Your task to perform on an android device: check google app version Image 0: 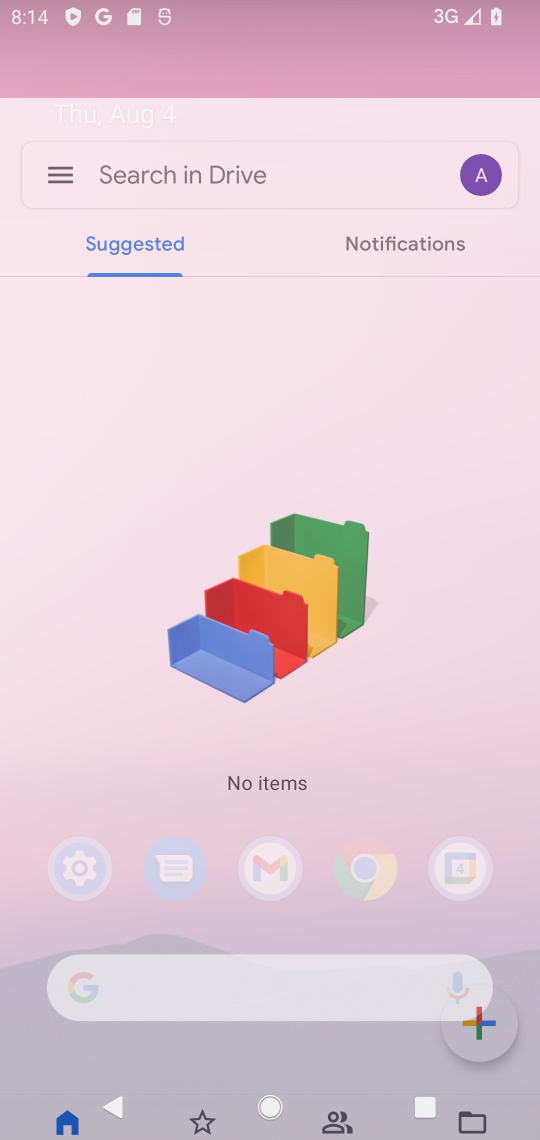
Step 0: press home button
Your task to perform on an android device: check google app version Image 1: 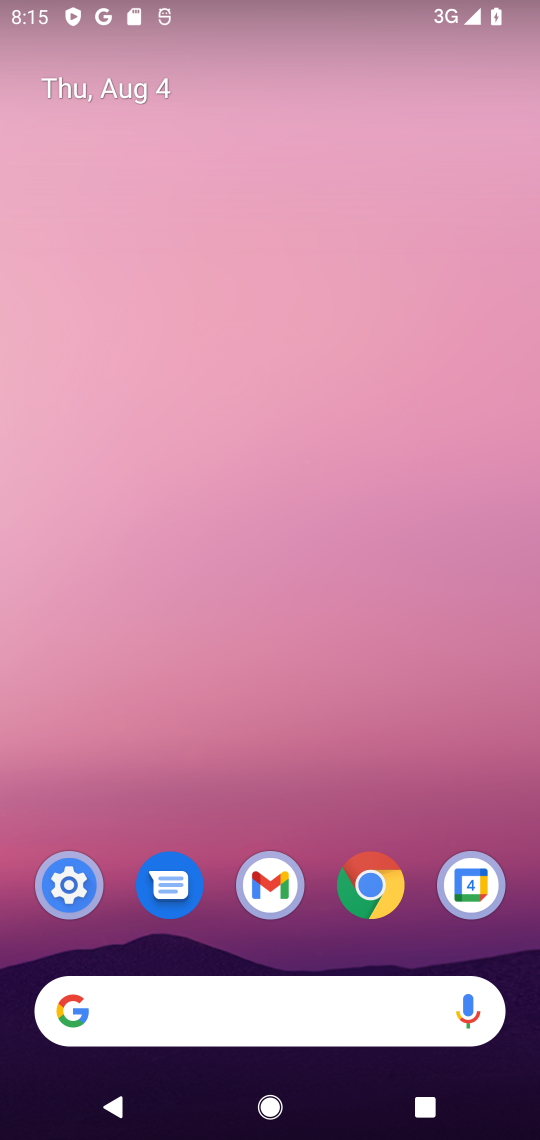
Step 1: drag from (313, 824) to (293, 68)
Your task to perform on an android device: check google app version Image 2: 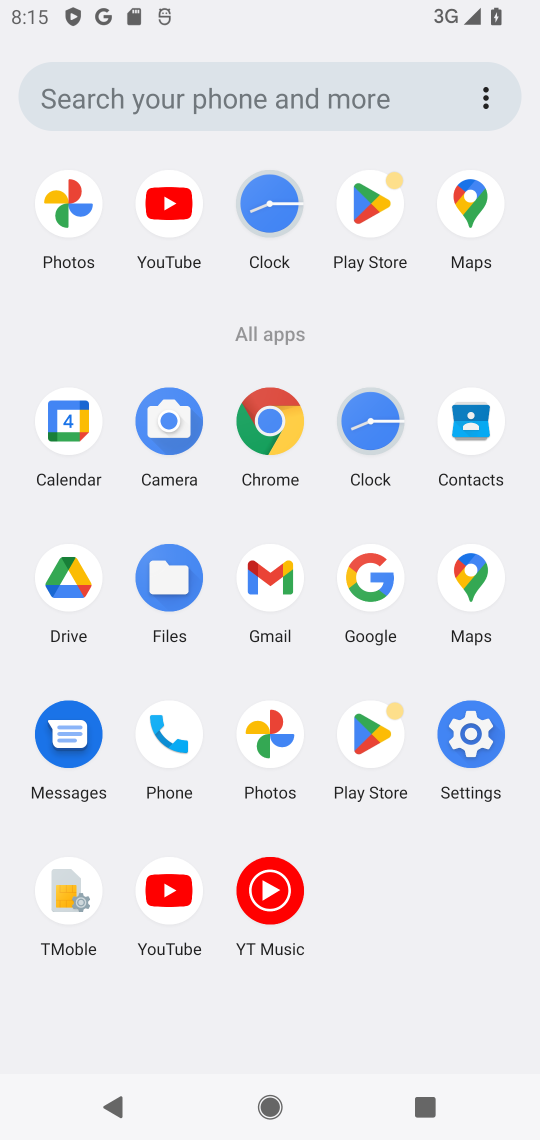
Step 2: click (371, 568)
Your task to perform on an android device: check google app version Image 3: 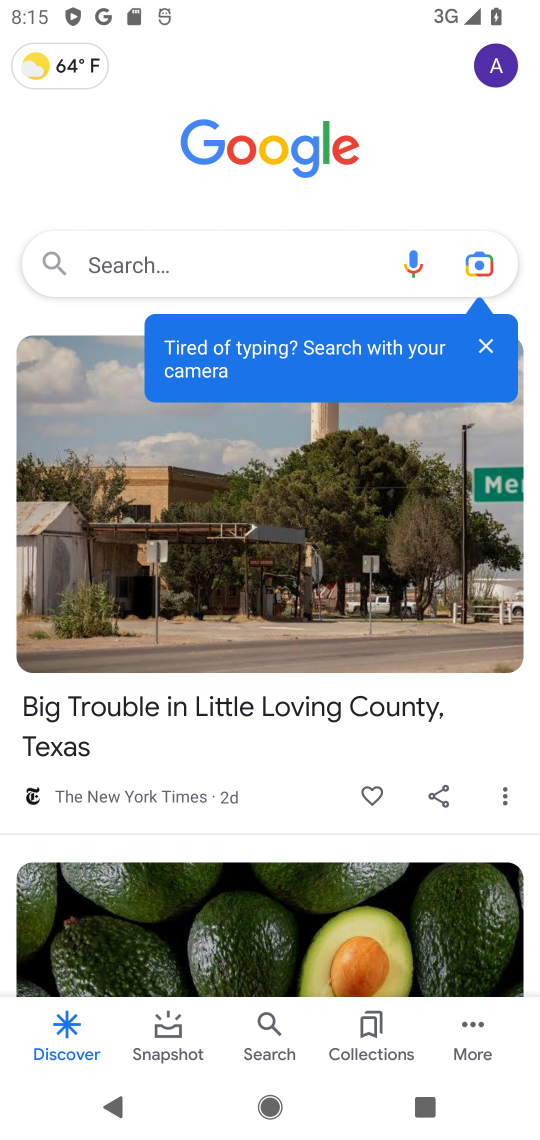
Step 3: click (497, 66)
Your task to perform on an android device: check google app version Image 4: 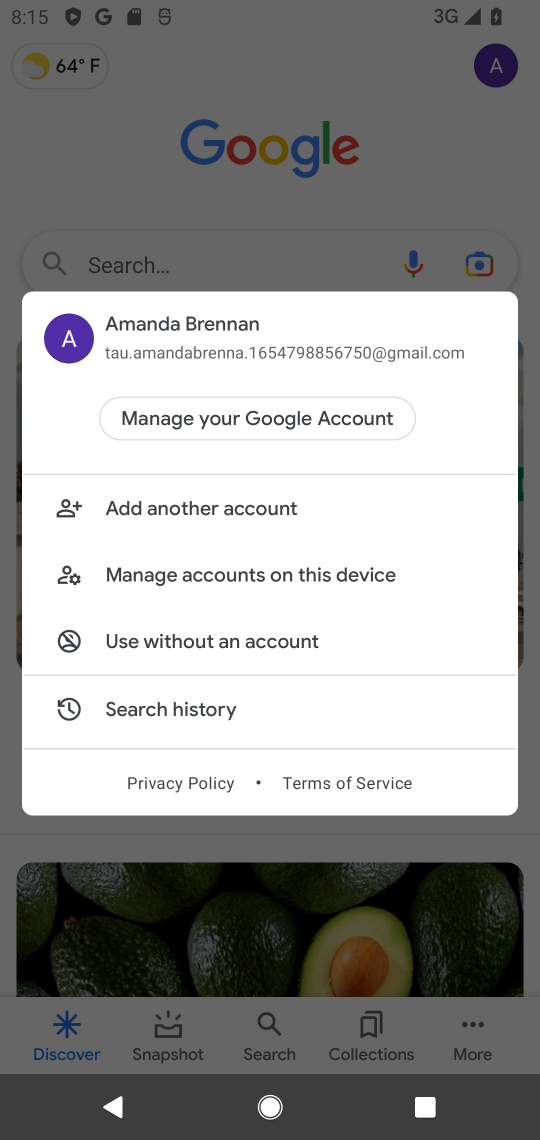
Step 4: click (300, 945)
Your task to perform on an android device: check google app version Image 5: 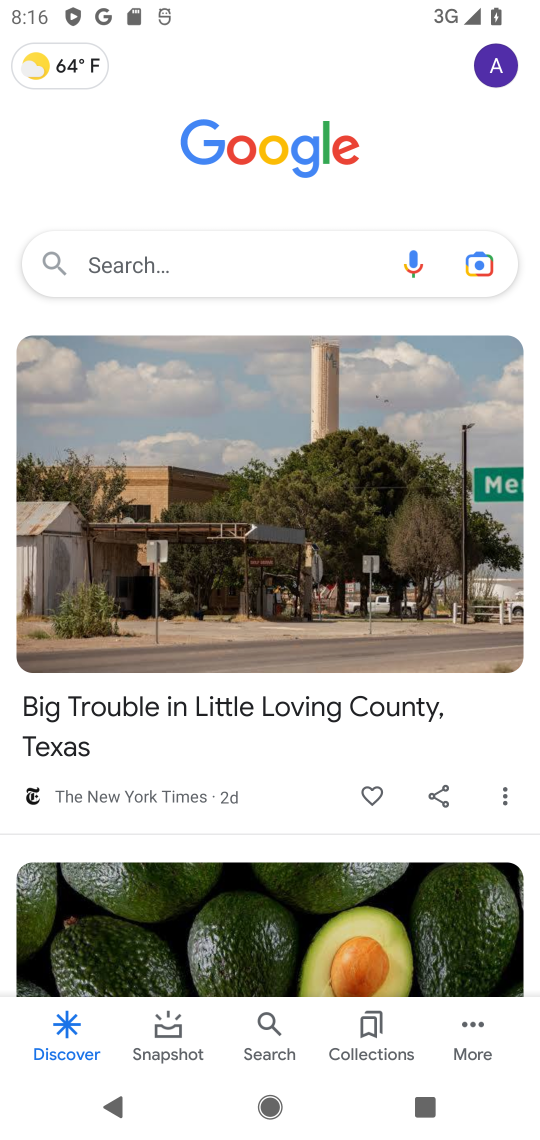
Step 5: click (466, 1021)
Your task to perform on an android device: check google app version Image 6: 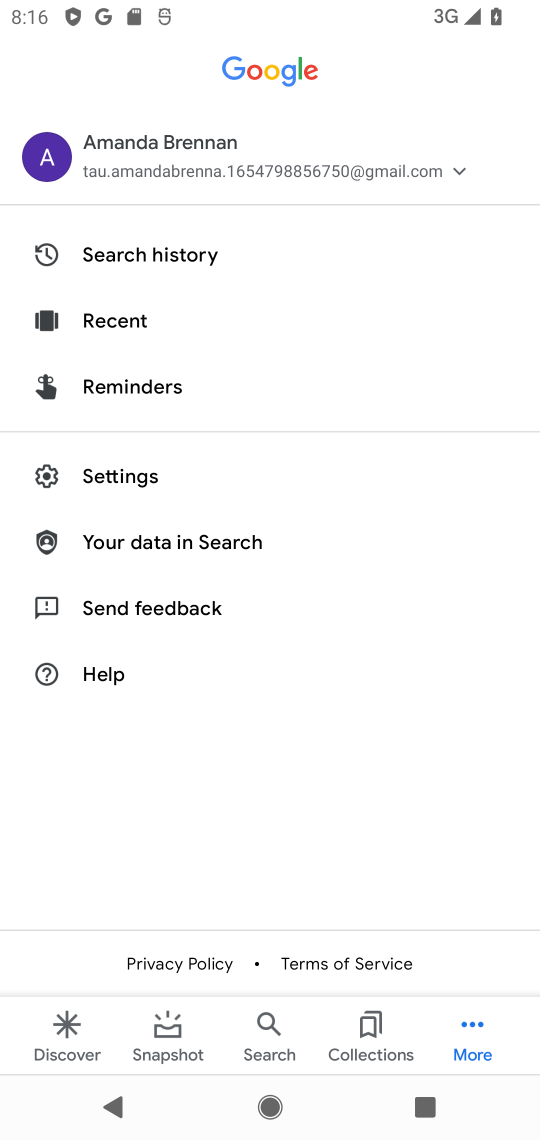
Step 6: click (169, 478)
Your task to perform on an android device: check google app version Image 7: 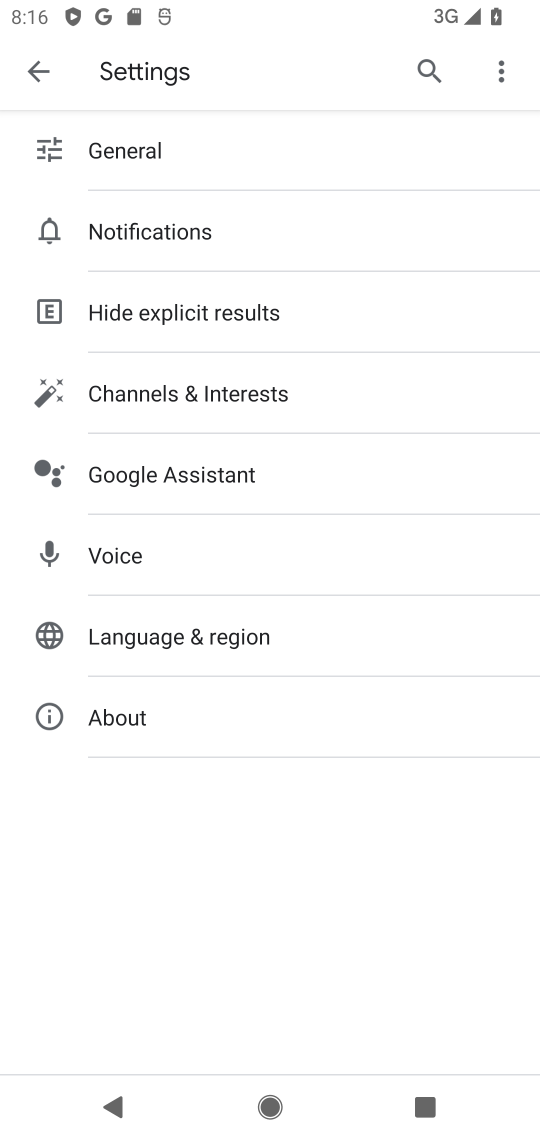
Step 7: click (184, 710)
Your task to perform on an android device: check google app version Image 8: 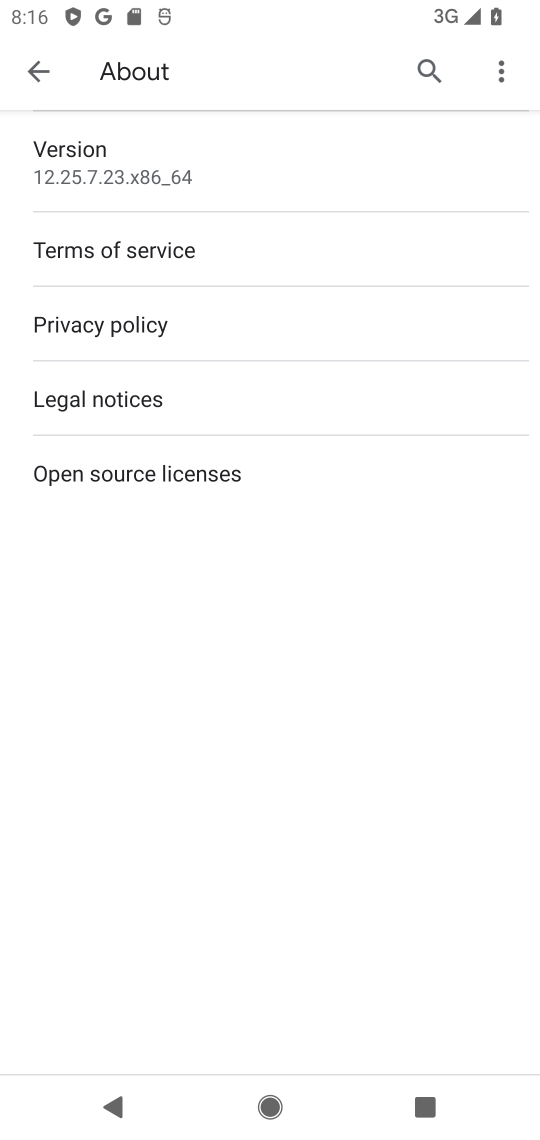
Step 8: click (107, 172)
Your task to perform on an android device: check google app version Image 9: 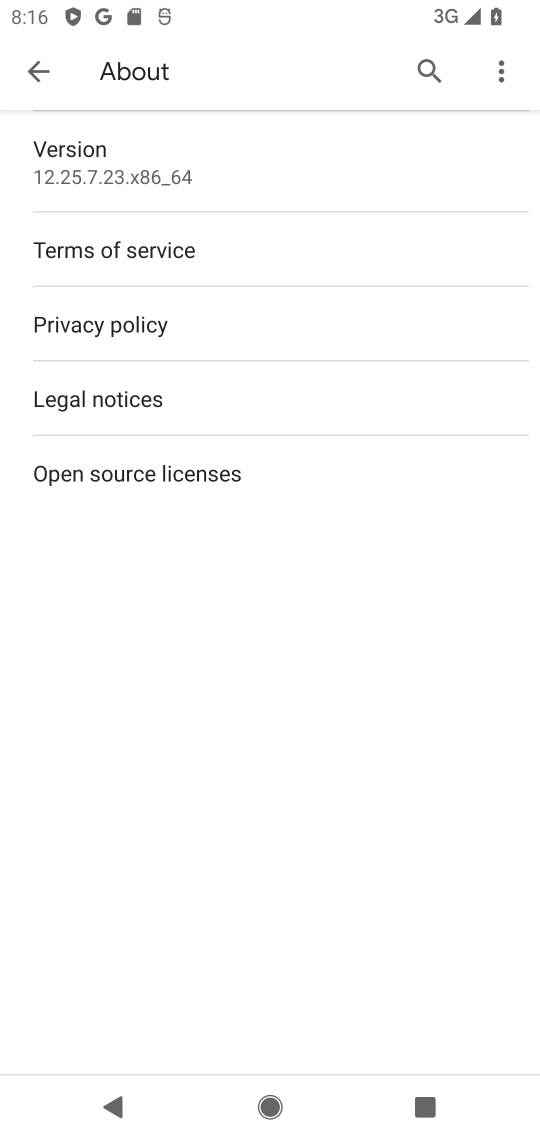
Step 9: task complete